Your task to perform on an android device: Open accessibility settings Image 0: 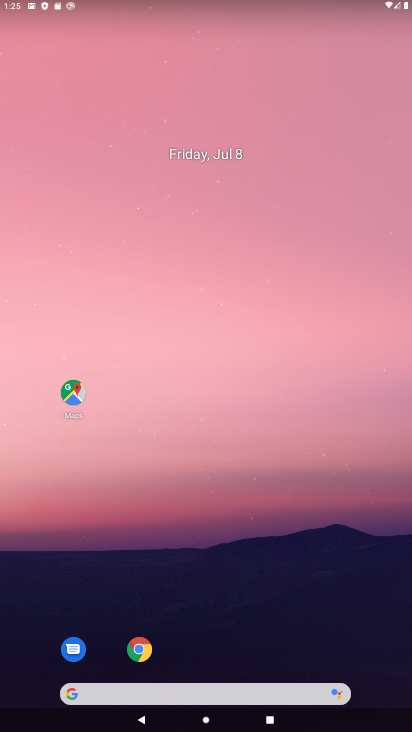
Step 0: press home button
Your task to perform on an android device: Open accessibility settings Image 1: 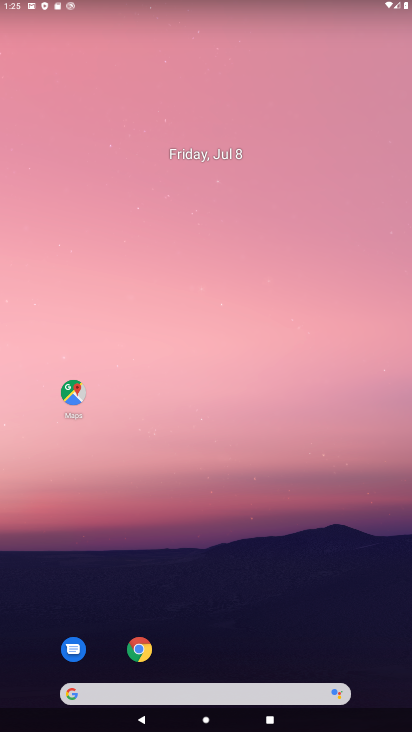
Step 1: drag from (242, 606) to (227, 60)
Your task to perform on an android device: Open accessibility settings Image 2: 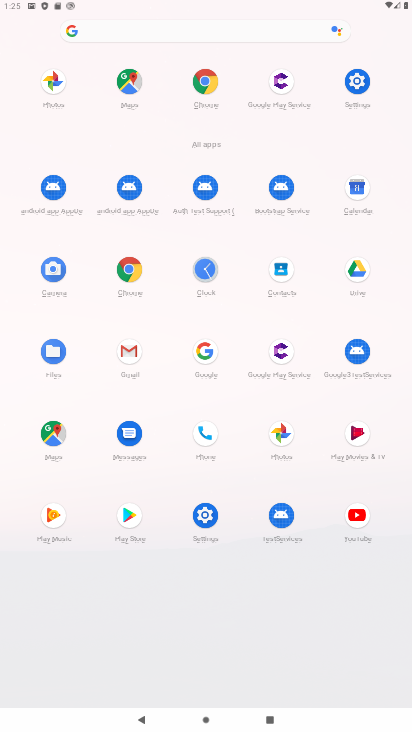
Step 2: click (363, 79)
Your task to perform on an android device: Open accessibility settings Image 3: 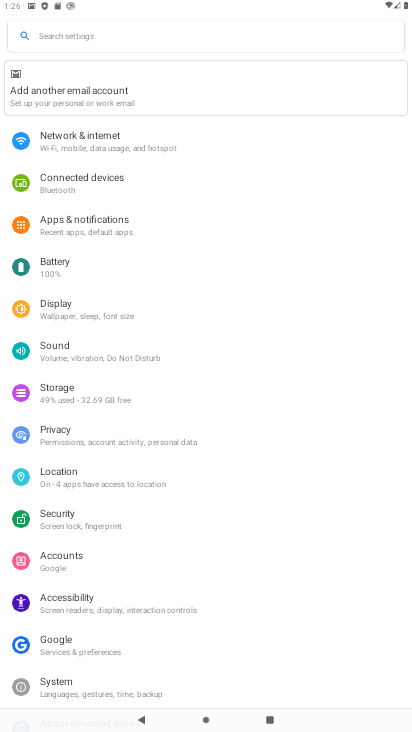
Step 3: click (111, 609)
Your task to perform on an android device: Open accessibility settings Image 4: 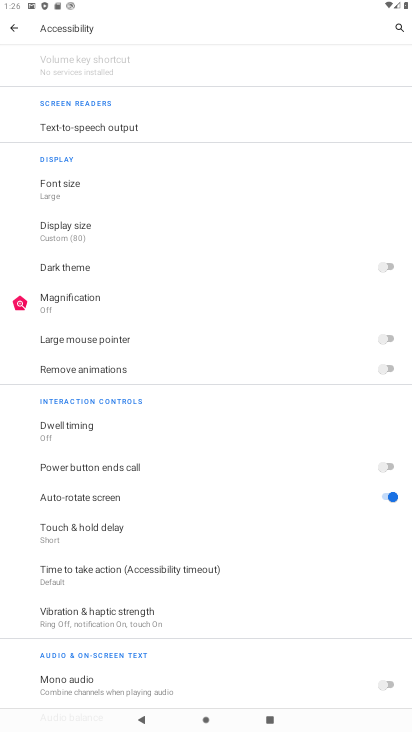
Step 4: task complete